Your task to perform on an android device: change the clock style Image 0: 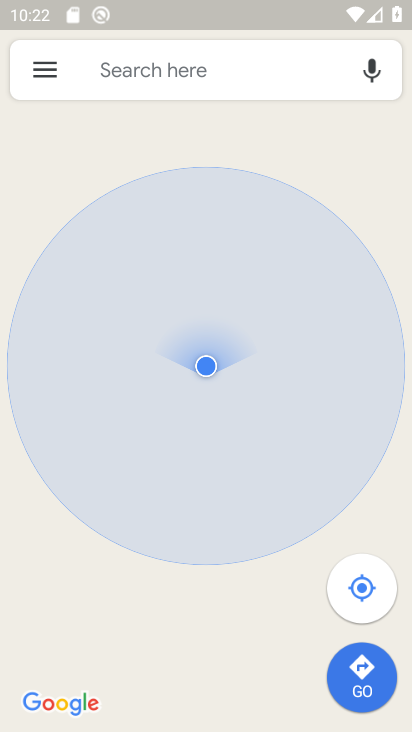
Step 0: press home button
Your task to perform on an android device: change the clock style Image 1: 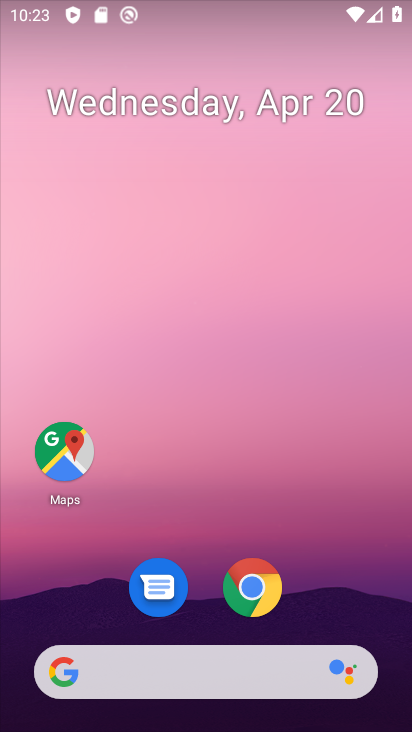
Step 1: drag from (206, 626) to (225, 100)
Your task to perform on an android device: change the clock style Image 2: 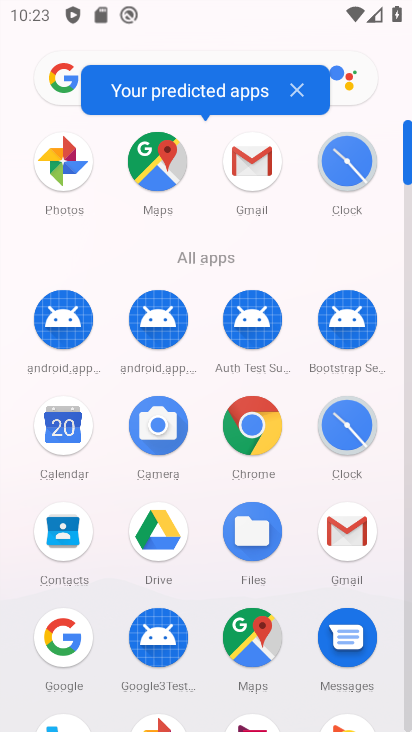
Step 2: click (345, 418)
Your task to perform on an android device: change the clock style Image 3: 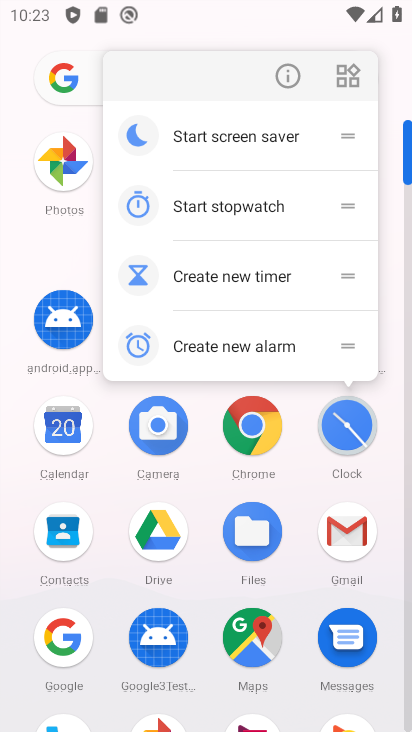
Step 3: click (347, 419)
Your task to perform on an android device: change the clock style Image 4: 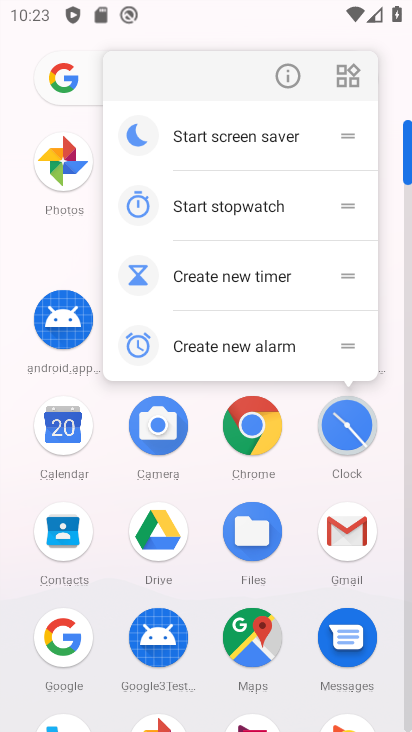
Step 4: click (346, 417)
Your task to perform on an android device: change the clock style Image 5: 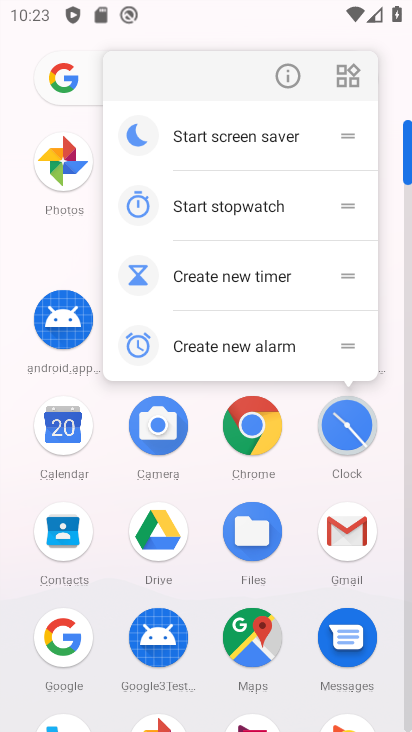
Step 5: click (346, 417)
Your task to perform on an android device: change the clock style Image 6: 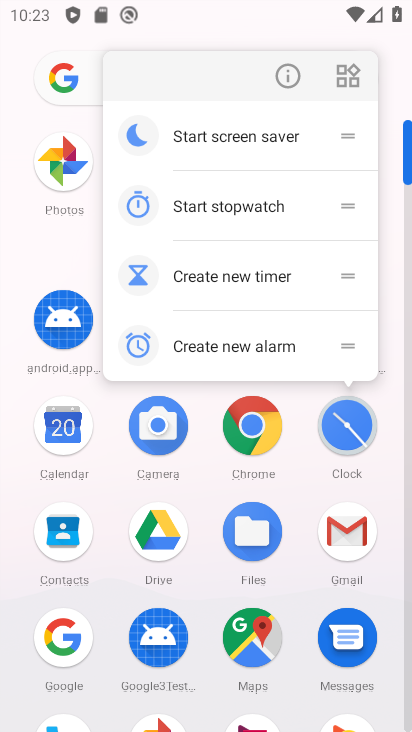
Step 6: click (343, 416)
Your task to perform on an android device: change the clock style Image 7: 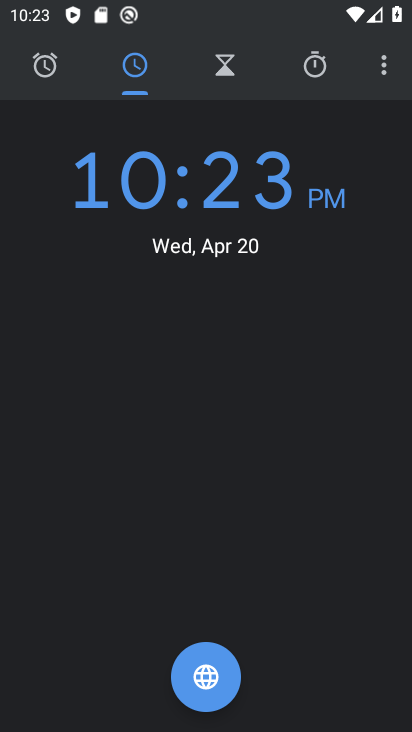
Step 7: click (384, 68)
Your task to perform on an android device: change the clock style Image 8: 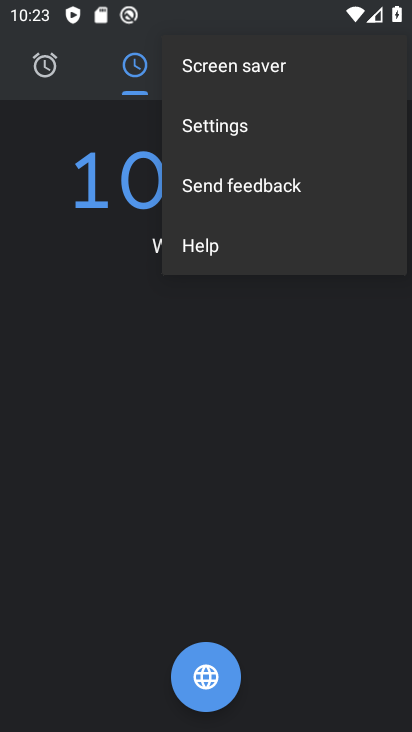
Step 8: click (251, 126)
Your task to perform on an android device: change the clock style Image 9: 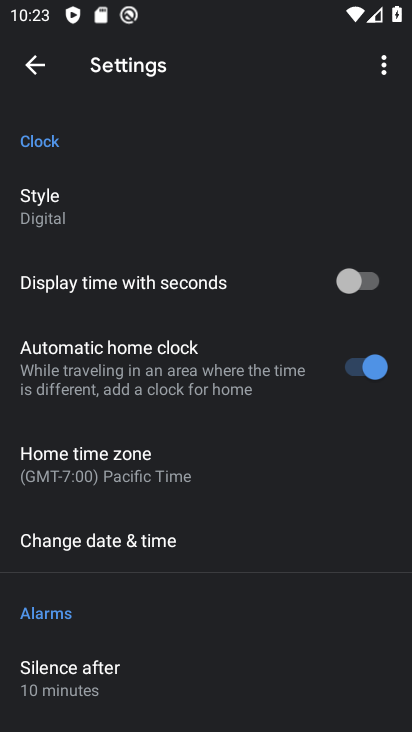
Step 9: click (99, 207)
Your task to perform on an android device: change the clock style Image 10: 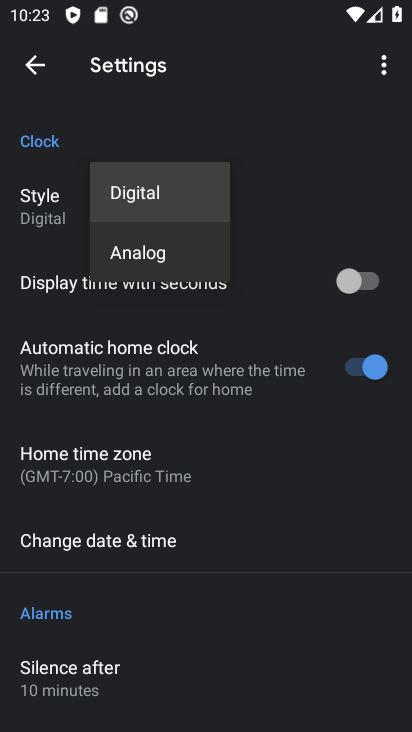
Step 10: click (169, 253)
Your task to perform on an android device: change the clock style Image 11: 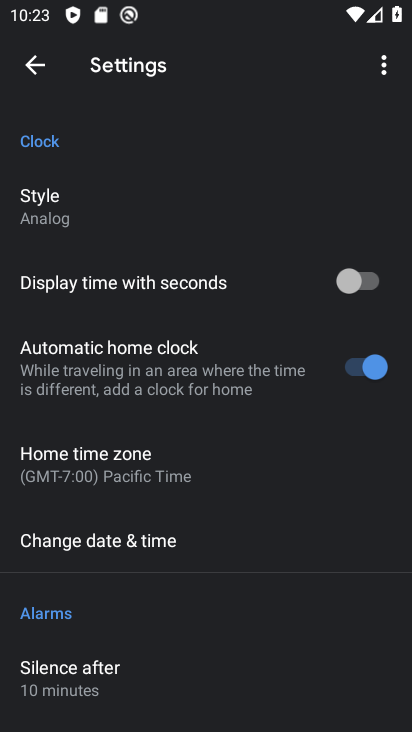
Step 11: task complete